Your task to perform on an android device: Open the map Image 0: 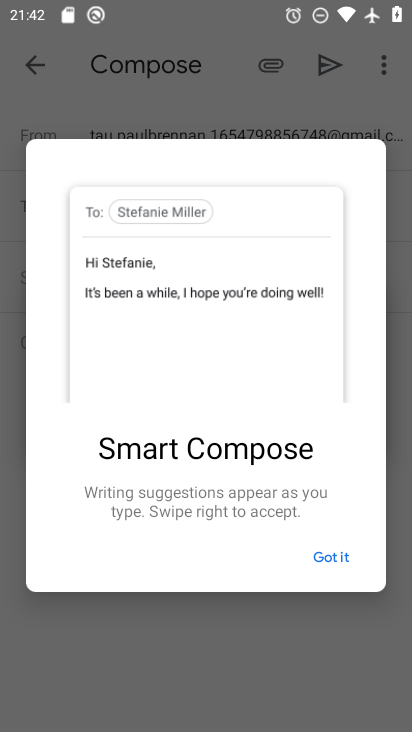
Step 0: press home button
Your task to perform on an android device: Open the map Image 1: 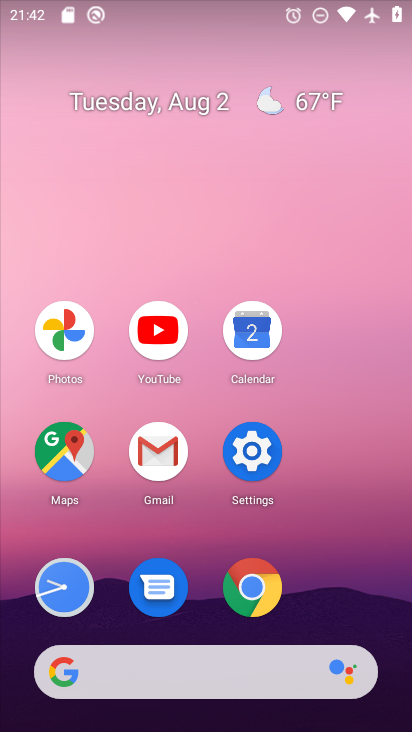
Step 1: click (61, 452)
Your task to perform on an android device: Open the map Image 2: 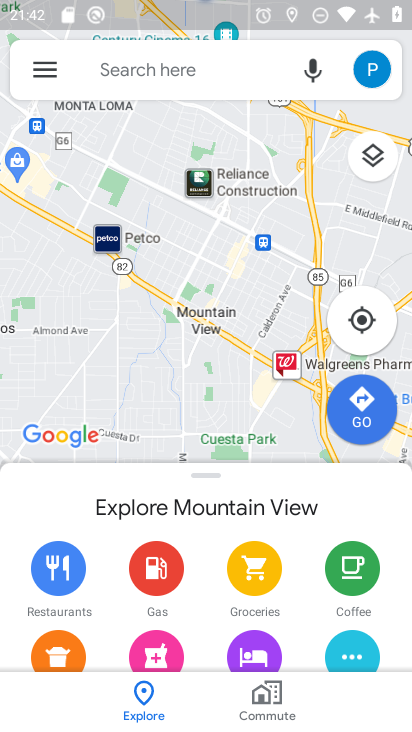
Step 2: task complete